Your task to perform on an android device: How big is a giraffe? Image 0: 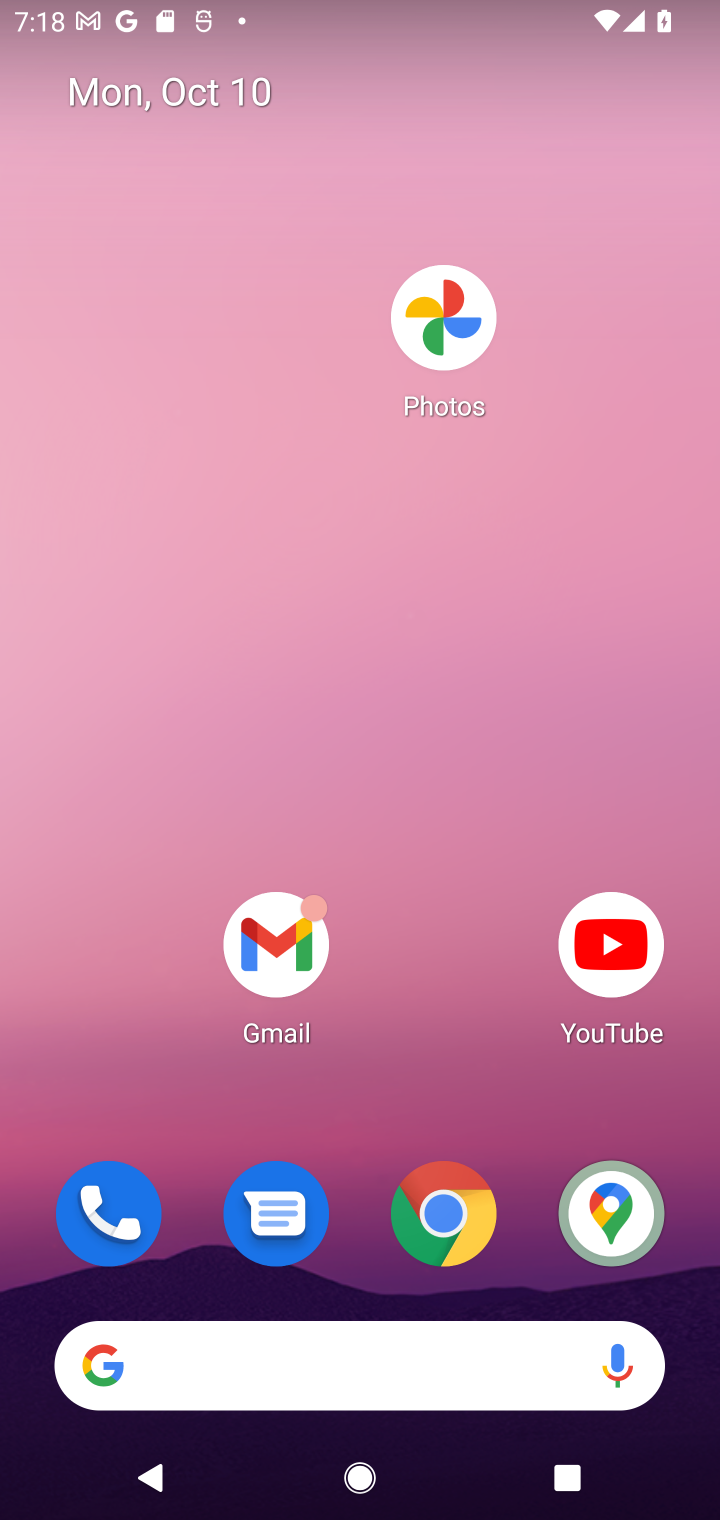
Step 0: click (376, 1348)
Your task to perform on an android device: How big is a giraffe? Image 1: 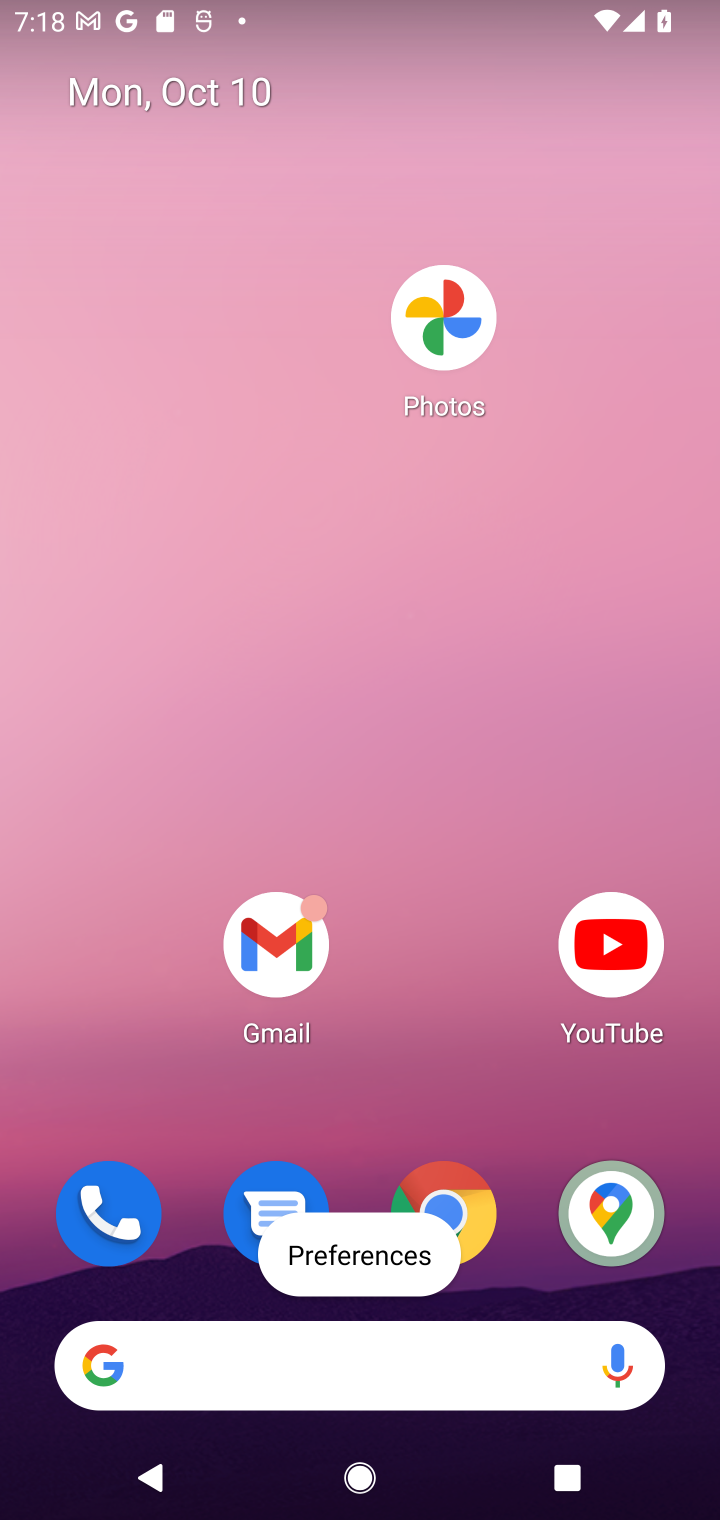
Step 1: click (302, 1375)
Your task to perform on an android device: How big is a giraffe? Image 2: 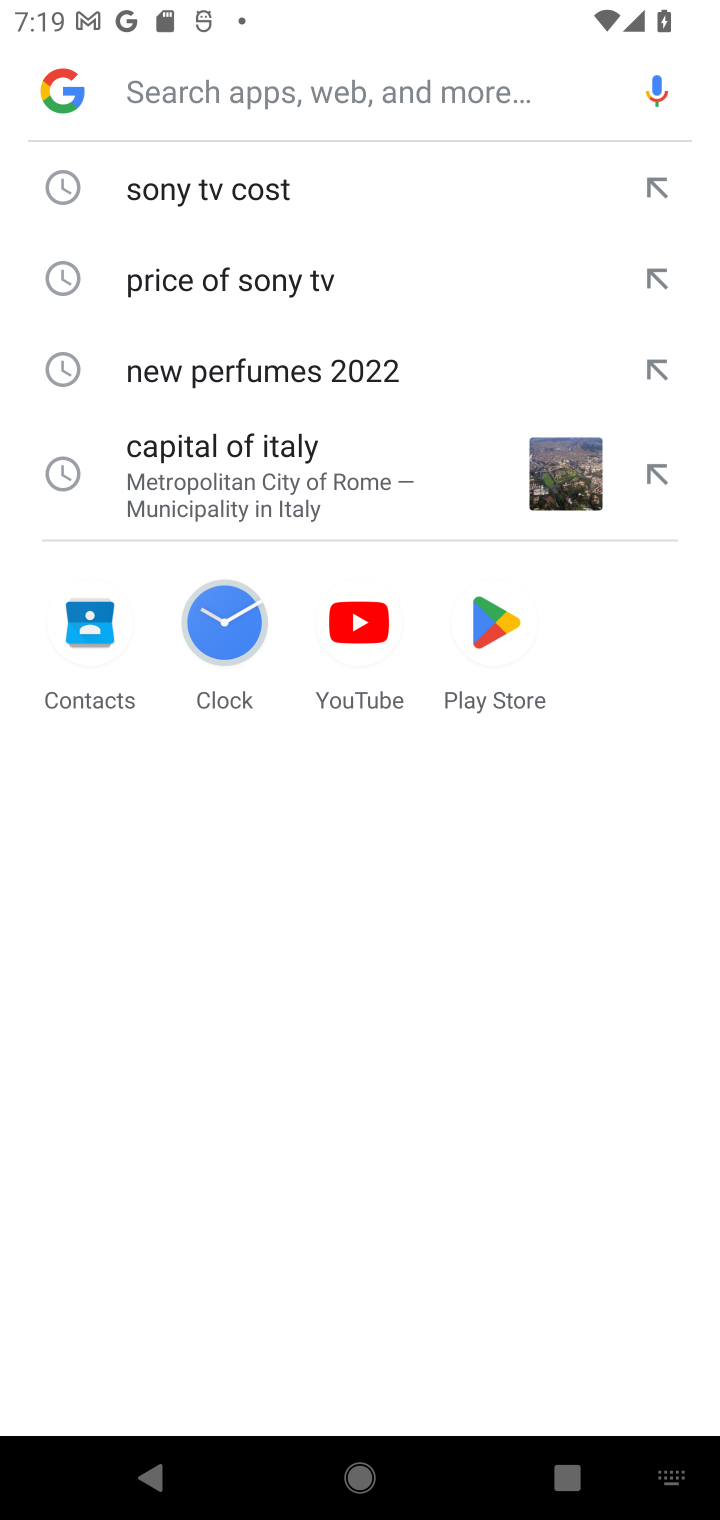
Step 2: type "How big is a giraffe?"
Your task to perform on an android device: How big is a giraffe? Image 3: 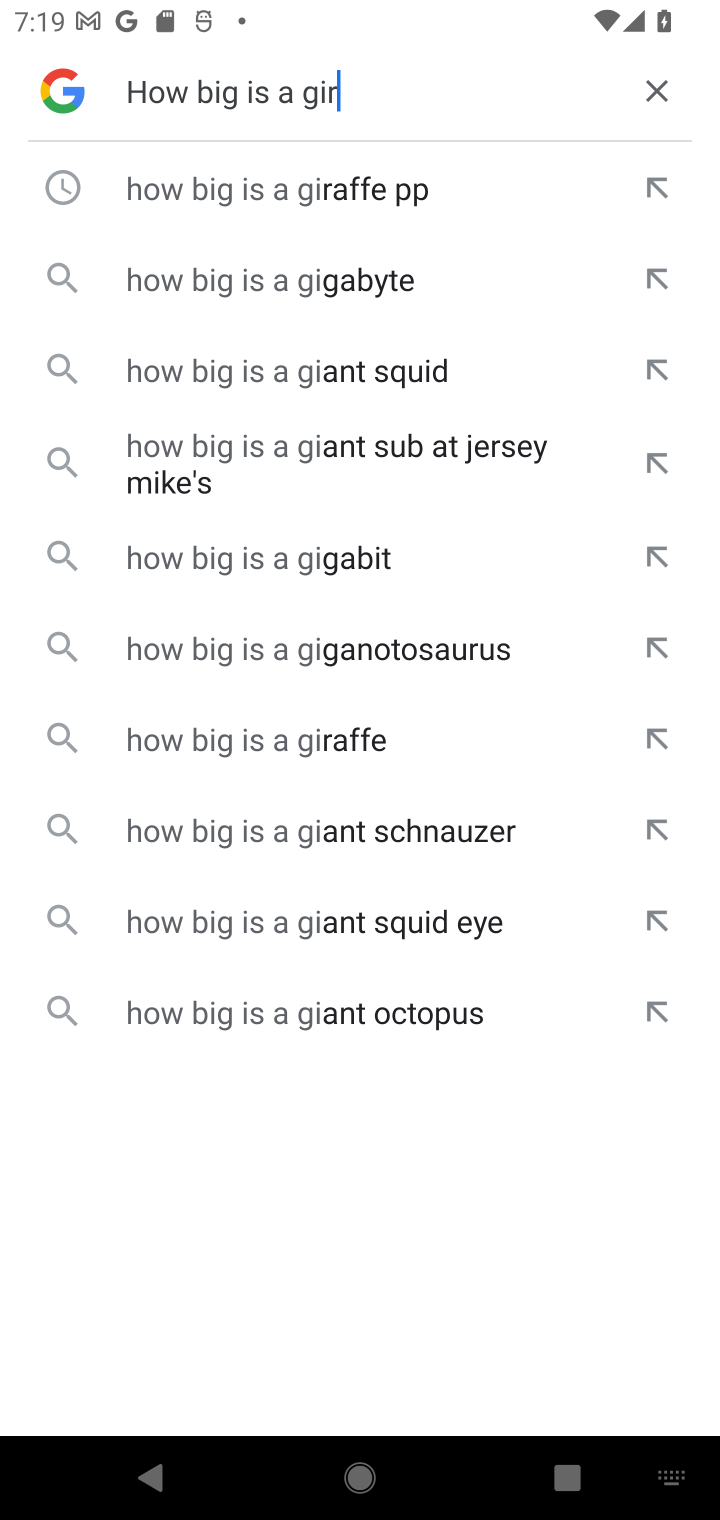
Step 3: type ""
Your task to perform on an android device: How big is a giraffe? Image 4: 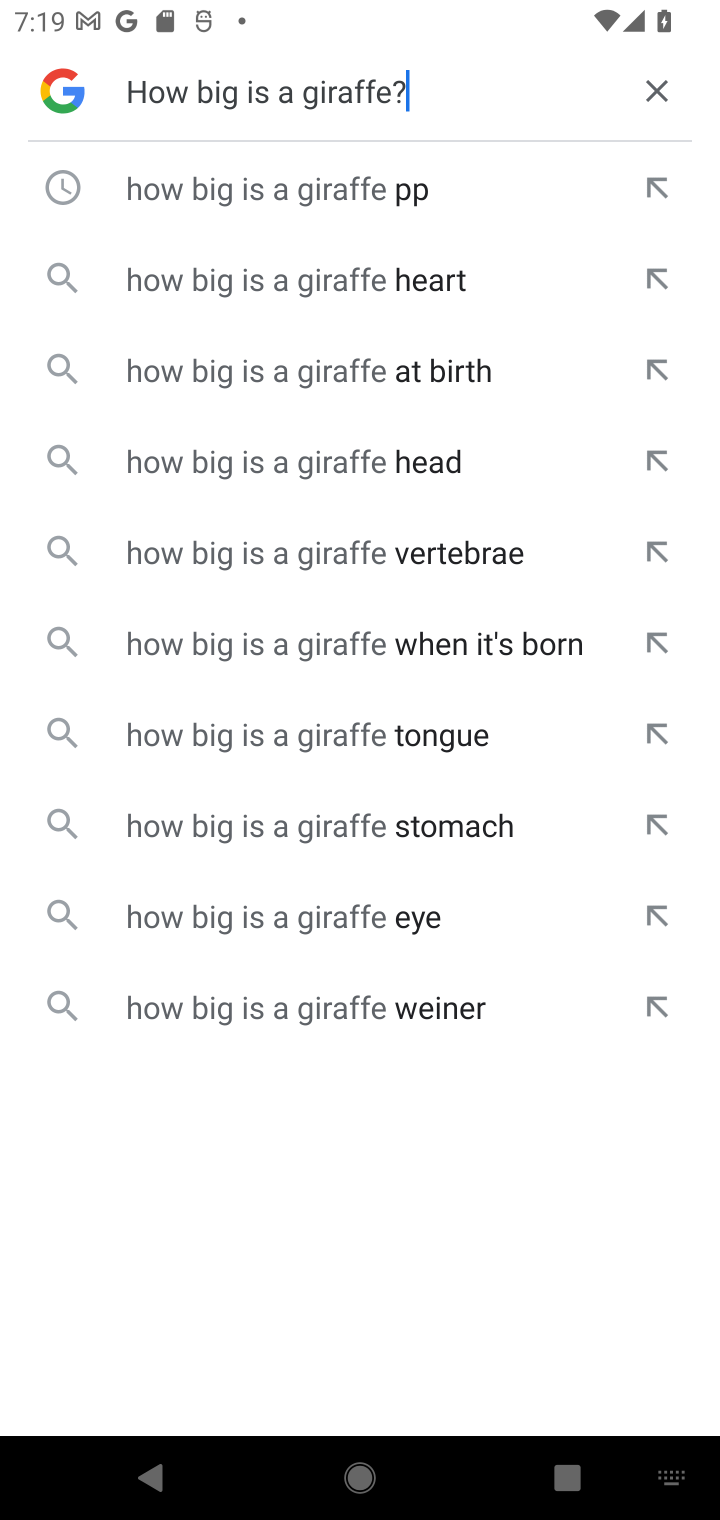
Step 4: click (270, 179)
Your task to perform on an android device: How big is a giraffe? Image 5: 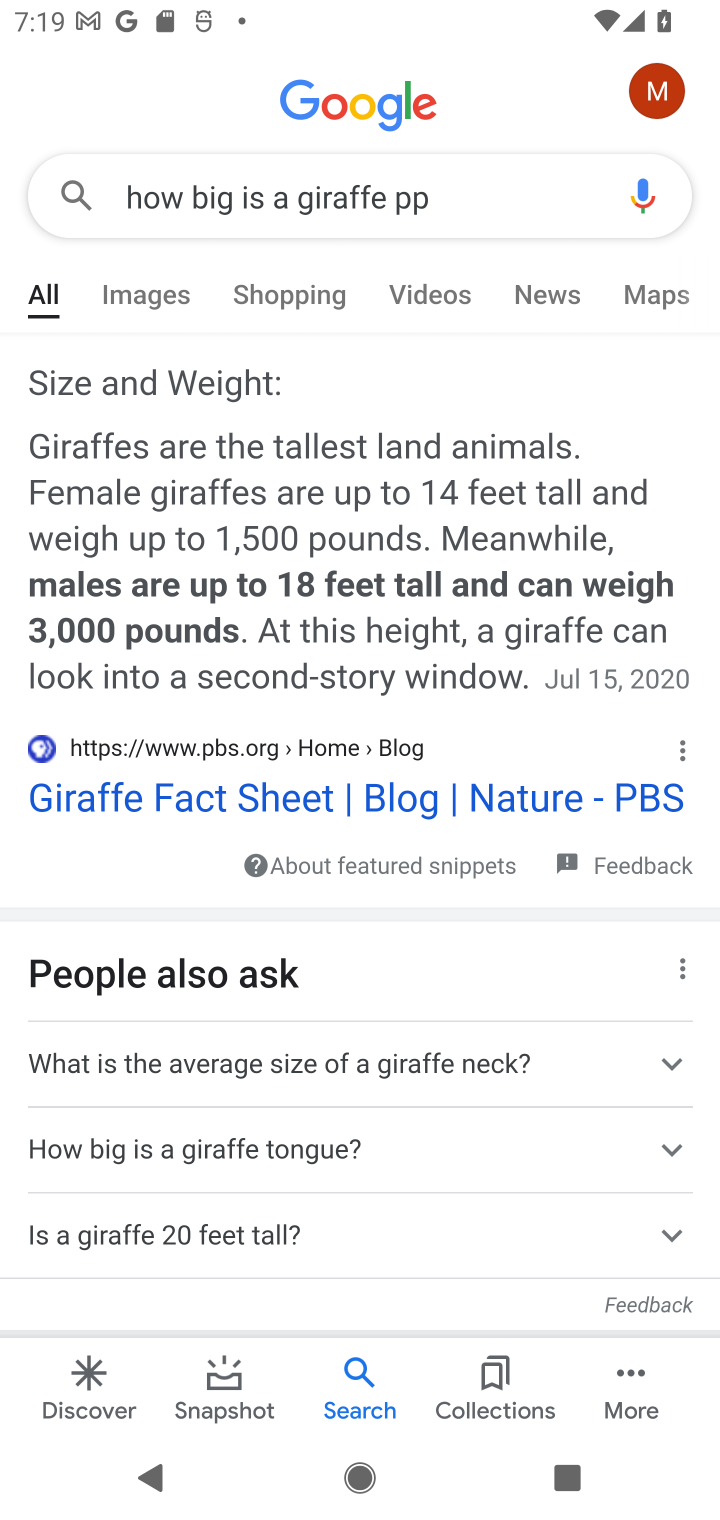
Step 5: task complete